Your task to perform on an android device: Go to internet settings Image 0: 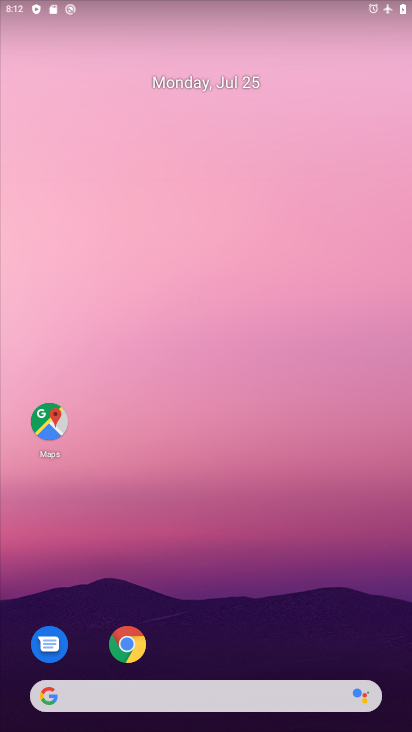
Step 0: drag from (179, 598) to (173, 4)
Your task to perform on an android device: Go to internet settings Image 1: 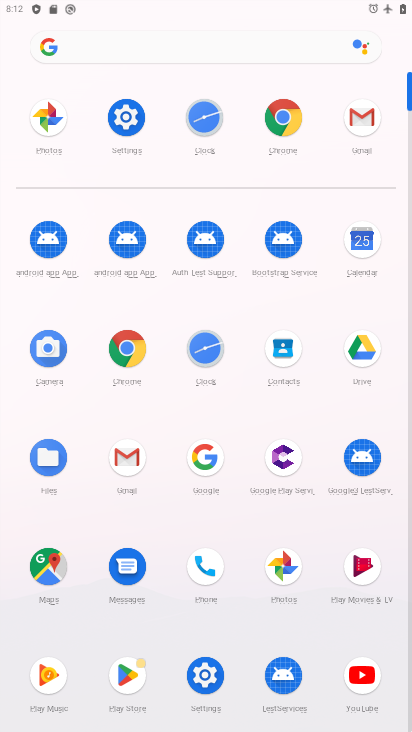
Step 1: click (130, 175)
Your task to perform on an android device: Go to internet settings Image 2: 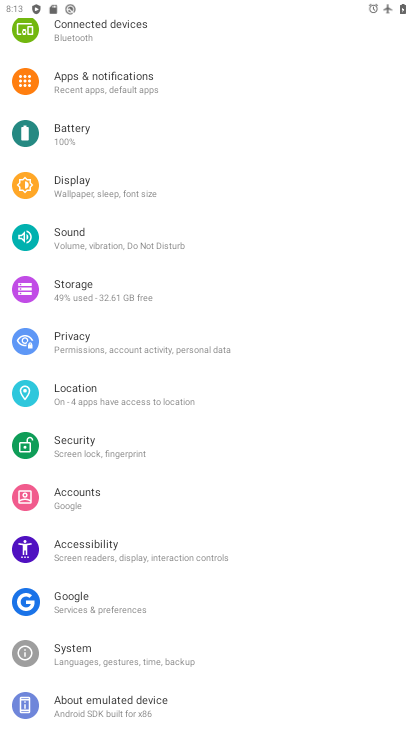
Step 2: drag from (130, 279) to (124, 513)
Your task to perform on an android device: Go to internet settings Image 3: 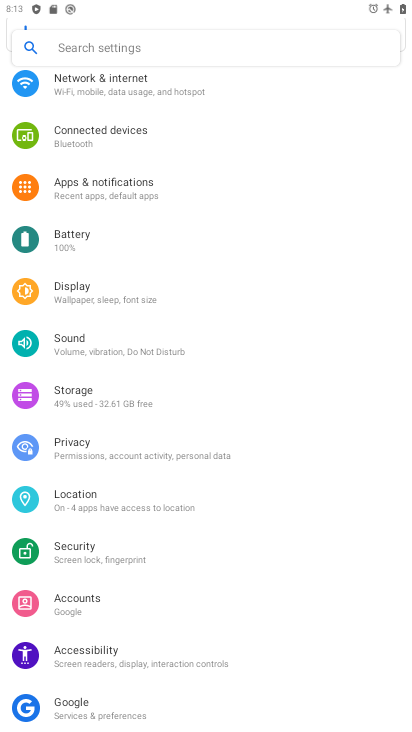
Step 3: click (121, 92)
Your task to perform on an android device: Go to internet settings Image 4: 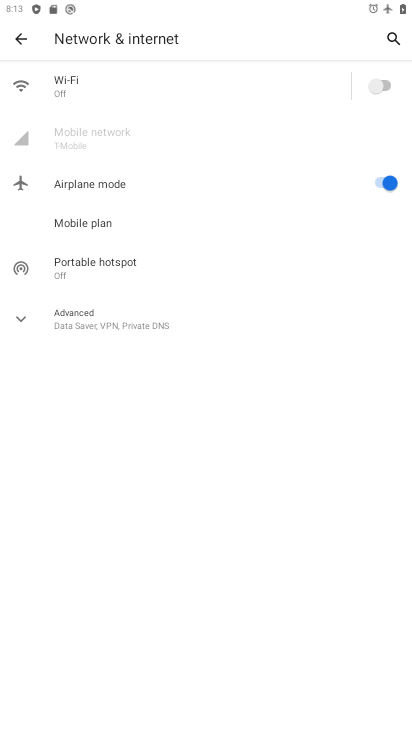
Step 4: task complete